Your task to perform on an android device: turn off javascript in the chrome app Image 0: 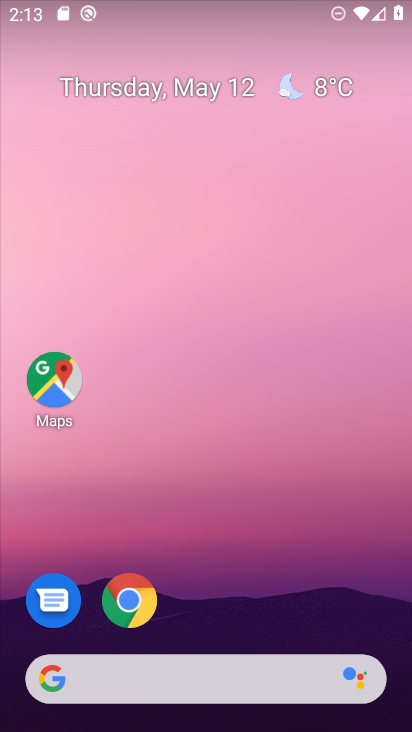
Step 0: click (127, 603)
Your task to perform on an android device: turn off javascript in the chrome app Image 1: 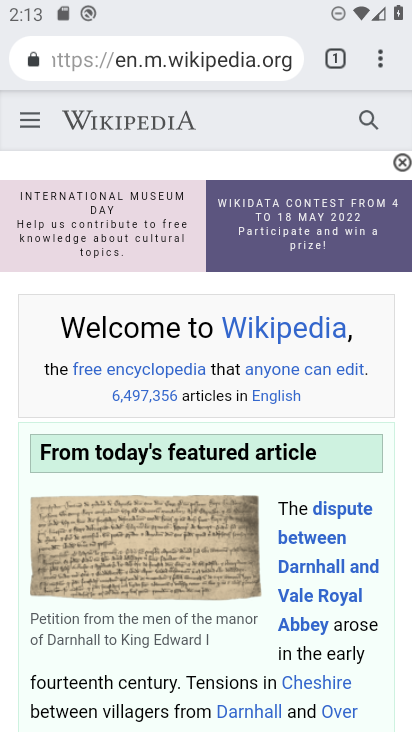
Step 1: click (381, 64)
Your task to perform on an android device: turn off javascript in the chrome app Image 2: 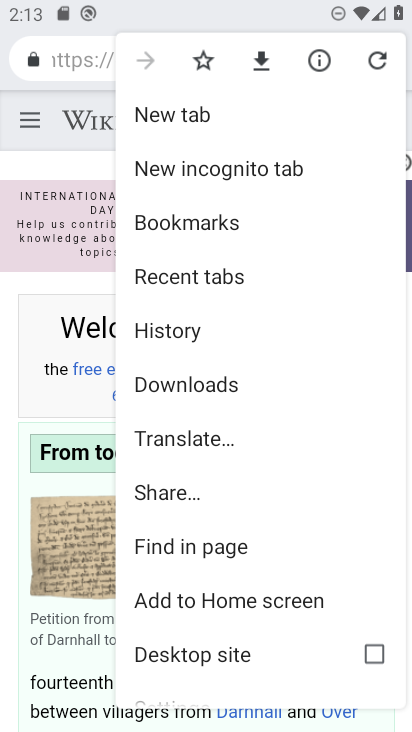
Step 2: drag from (228, 652) to (247, 249)
Your task to perform on an android device: turn off javascript in the chrome app Image 3: 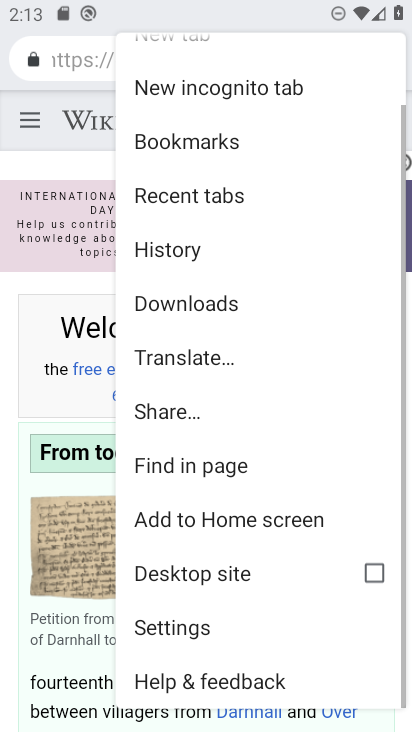
Step 3: click (160, 628)
Your task to perform on an android device: turn off javascript in the chrome app Image 4: 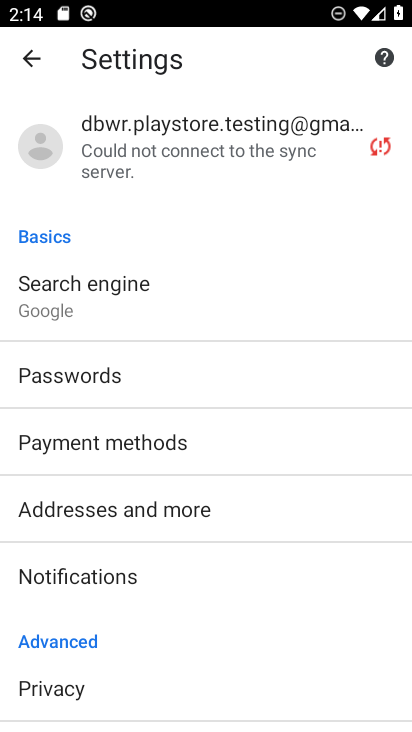
Step 4: drag from (147, 643) to (162, 248)
Your task to perform on an android device: turn off javascript in the chrome app Image 5: 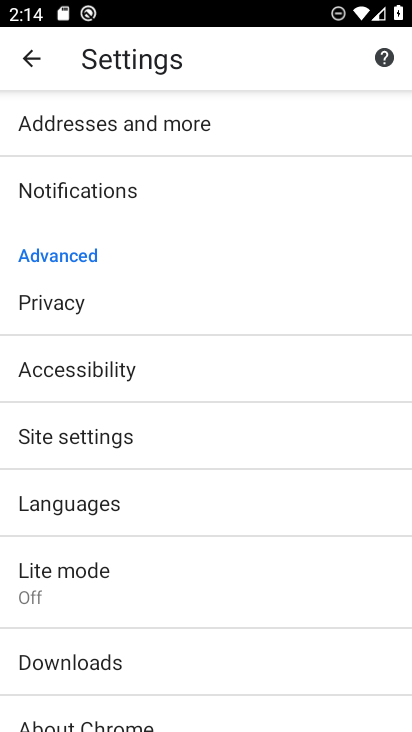
Step 5: click (90, 434)
Your task to perform on an android device: turn off javascript in the chrome app Image 6: 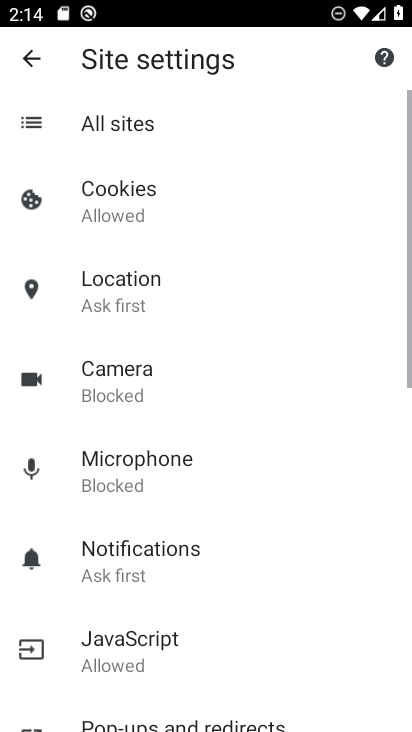
Step 6: drag from (151, 642) to (156, 472)
Your task to perform on an android device: turn off javascript in the chrome app Image 7: 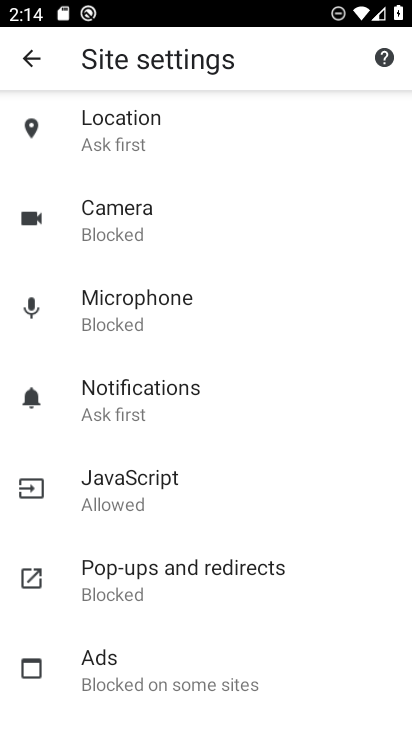
Step 7: click (110, 484)
Your task to perform on an android device: turn off javascript in the chrome app Image 8: 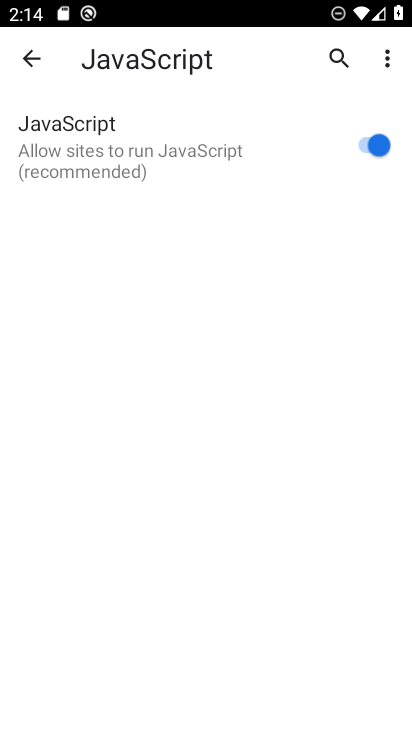
Step 8: click (369, 153)
Your task to perform on an android device: turn off javascript in the chrome app Image 9: 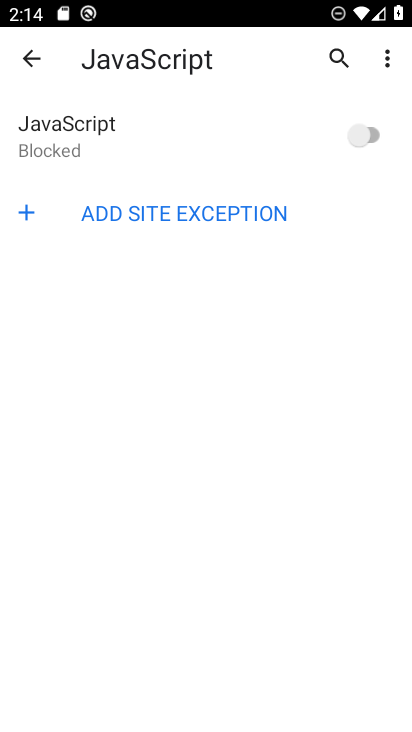
Step 9: task complete